Your task to perform on an android device: Open Google Chrome and open the bookmarks view Image 0: 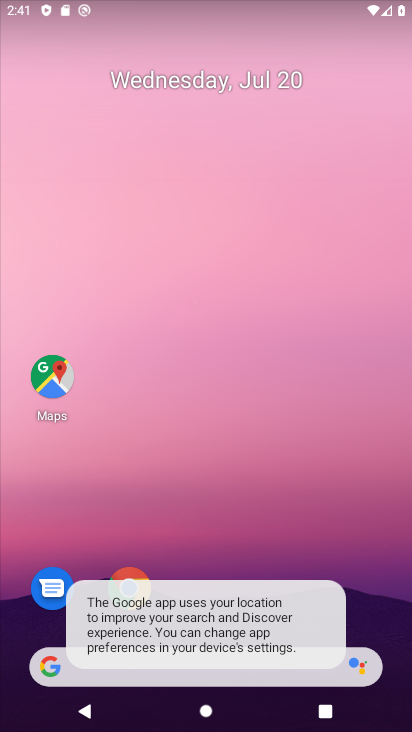
Step 0: click (129, 580)
Your task to perform on an android device: Open Google Chrome and open the bookmarks view Image 1: 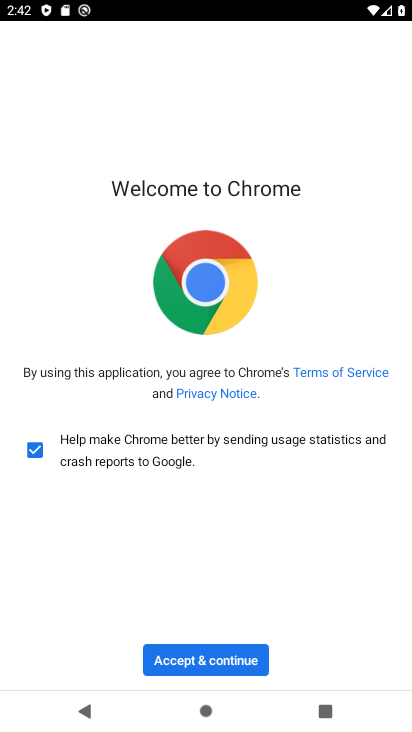
Step 1: click (224, 667)
Your task to perform on an android device: Open Google Chrome and open the bookmarks view Image 2: 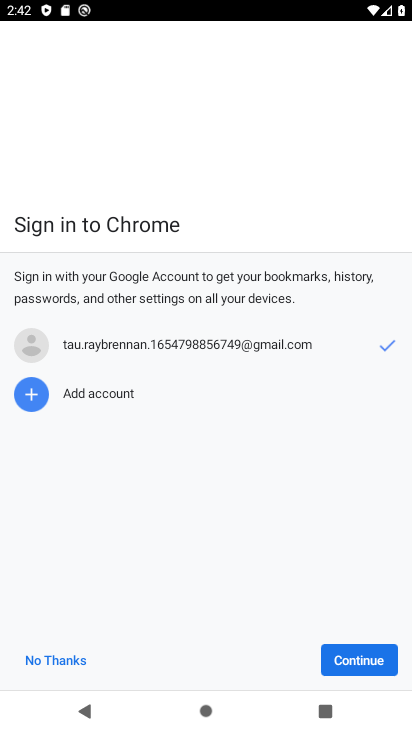
Step 2: click (369, 653)
Your task to perform on an android device: Open Google Chrome and open the bookmarks view Image 3: 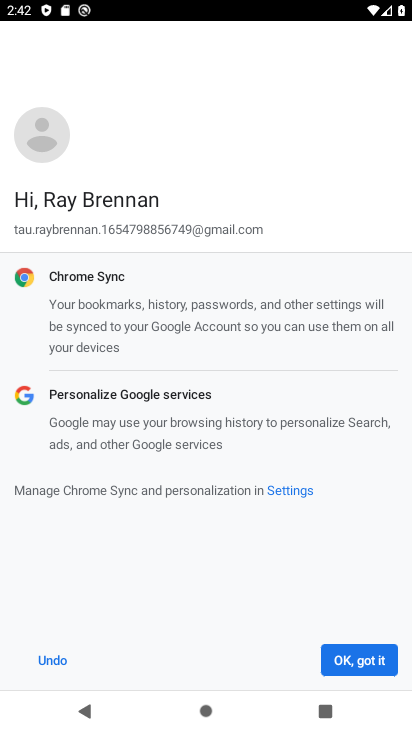
Step 3: click (353, 672)
Your task to perform on an android device: Open Google Chrome and open the bookmarks view Image 4: 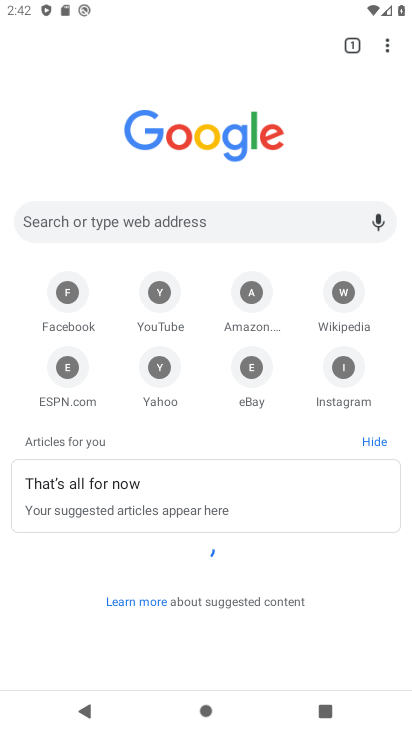
Step 4: task complete